Your task to perform on an android device: Open Chrome and go to settings Image 0: 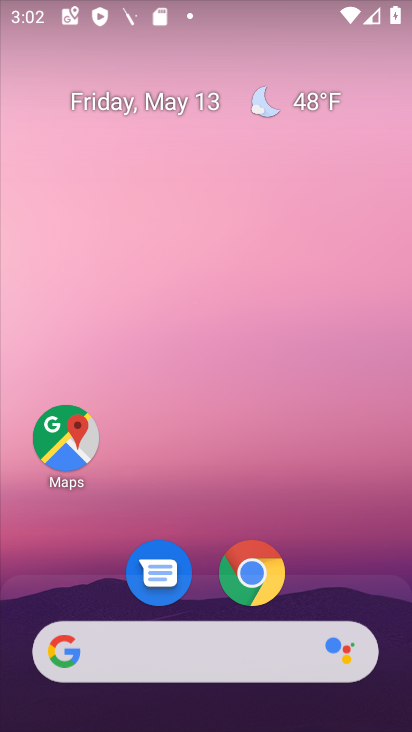
Step 0: click (246, 570)
Your task to perform on an android device: Open Chrome and go to settings Image 1: 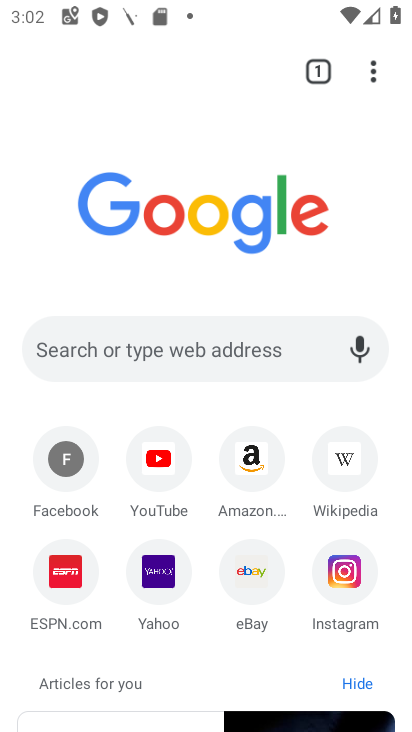
Step 1: task complete